Your task to perform on an android device: check out phone information Image 0: 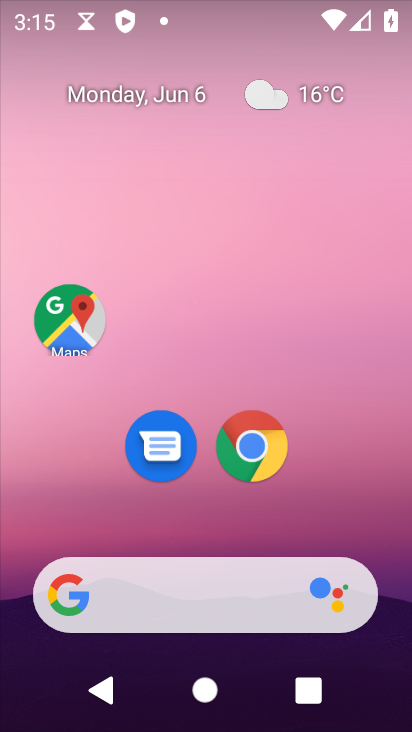
Step 0: drag from (17, 583) to (226, 62)
Your task to perform on an android device: check out phone information Image 1: 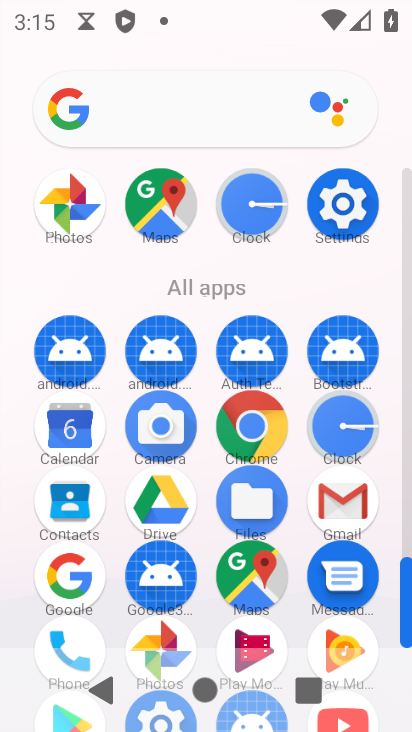
Step 1: drag from (216, 553) to (331, 252)
Your task to perform on an android device: check out phone information Image 2: 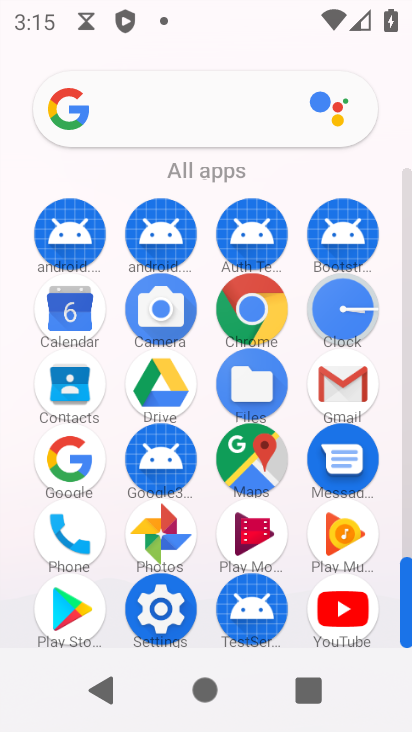
Step 2: click (169, 614)
Your task to perform on an android device: check out phone information Image 3: 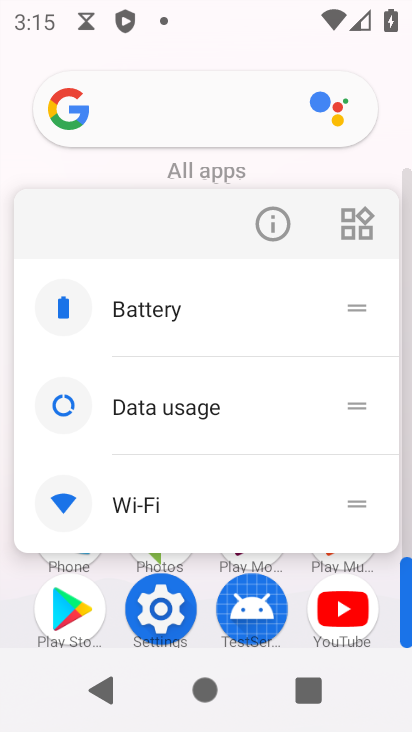
Step 3: click (169, 615)
Your task to perform on an android device: check out phone information Image 4: 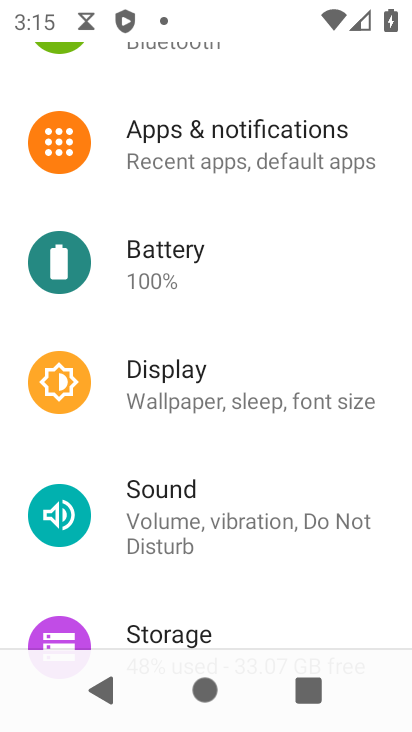
Step 4: drag from (171, 607) to (313, 23)
Your task to perform on an android device: check out phone information Image 5: 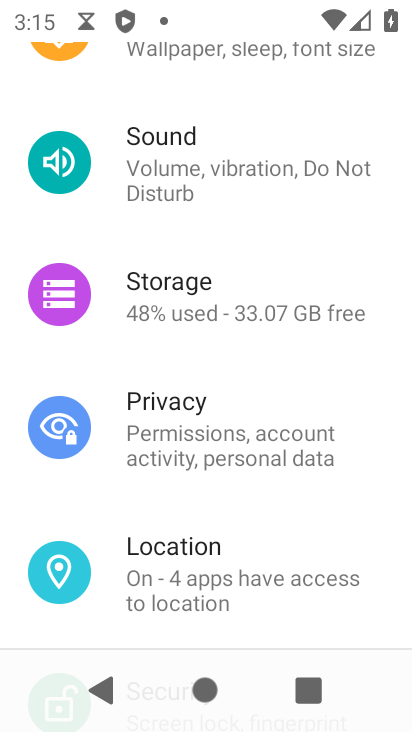
Step 5: drag from (177, 548) to (305, 118)
Your task to perform on an android device: check out phone information Image 6: 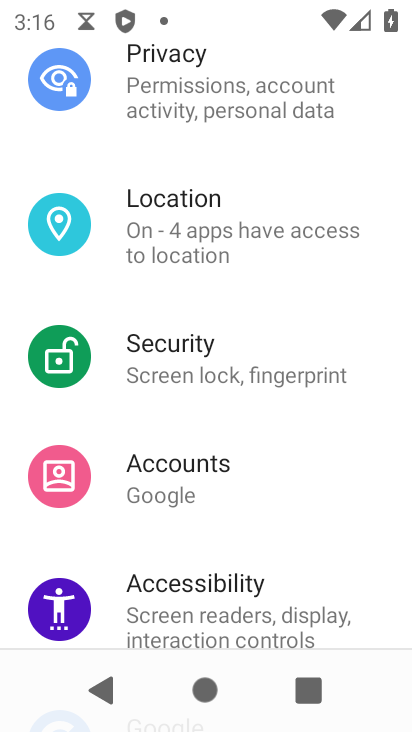
Step 6: drag from (192, 563) to (316, 116)
Your task to perform on an android device: check out phone information Image 7: 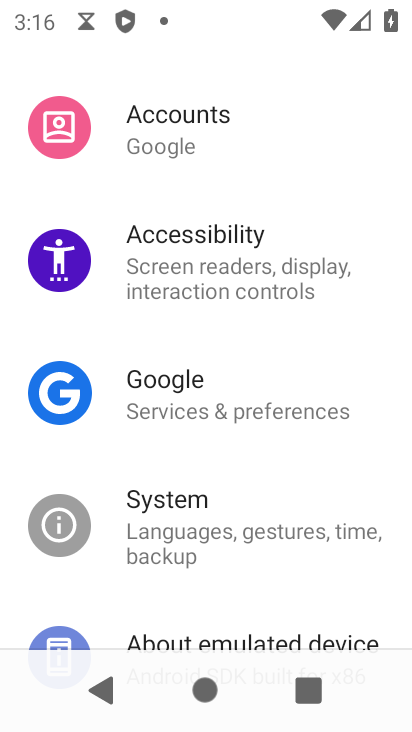
Step 7: drag from (190, 527) to (265, 240)
Your task to perform on an android device: check out phone information Image 8: 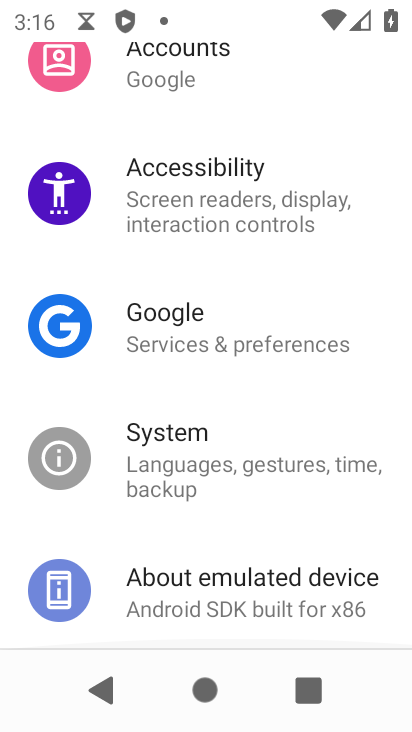
Step 8: click (209, 575)
Your task to perform on an android device: check out phone information Image 9: 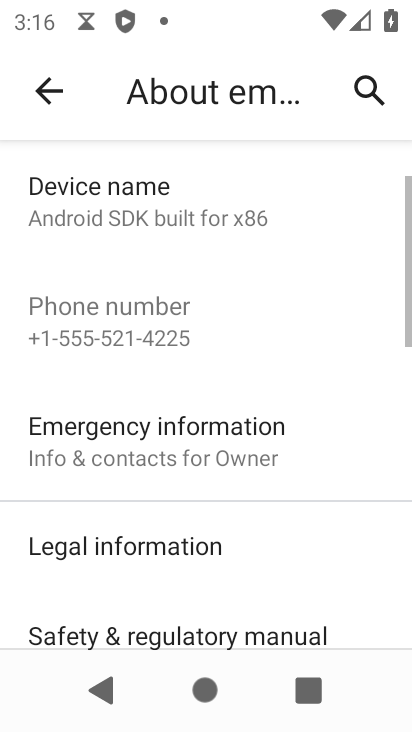
Step 9: task complete